Your task to perform on an android device: clear all cookies in the chrome app Image 0: 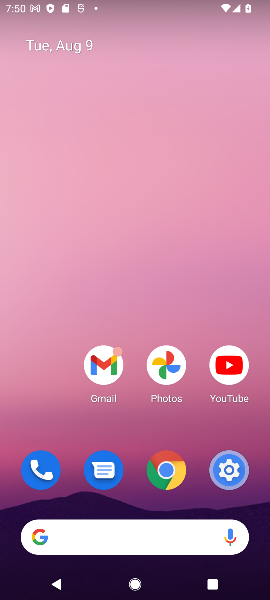
Step 0: click (161, 467)
Your task to perform on an android device: clear all cookies in the chrome app Image 1: 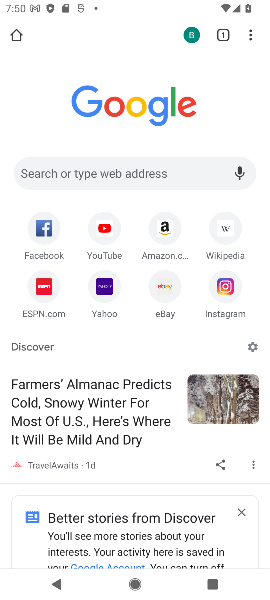
Step 1: click (246, 33)
Your task to perform on an android device: clear all cookies in the chrome app Image 2: 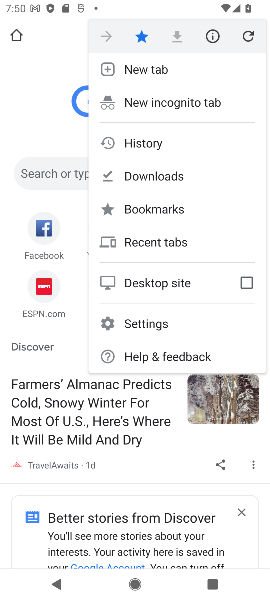
Step 2: click (151, 142)
Your task to perform on an android device: clear all cookies in the chrome app Image 3: 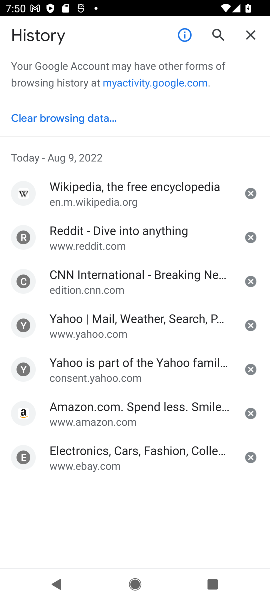
Step 3: click (75, 117)
Your task to perform on an android device: clear all cookies in the chrome app Image 4: 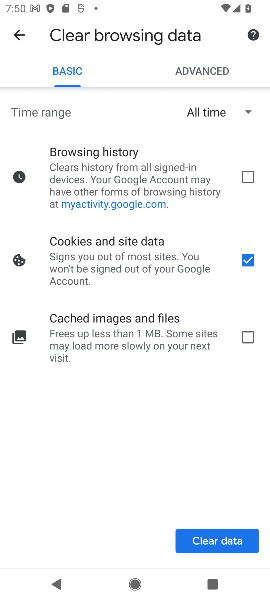
Step 4: click (216, 543)
Your task to perform on an android device: clear all cookies in the chrome app Image 5: 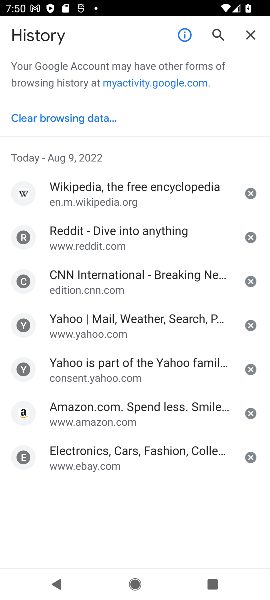
Step 5: task complete